Your task to perform on an android device: Check the weather Image 0: 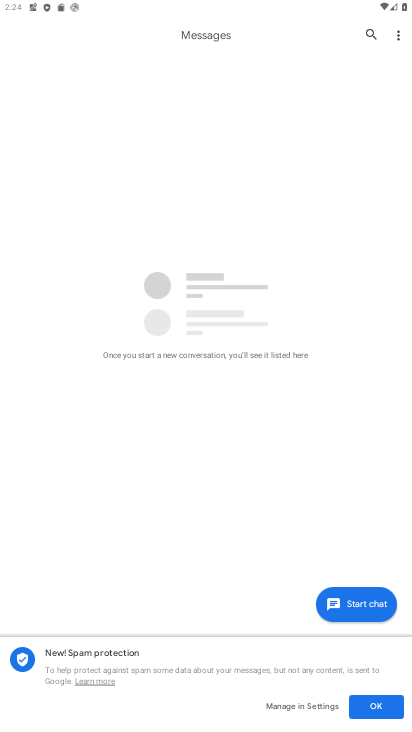
Step 0: press home button
Your task to perform on an android device: Check the weather Image 1: 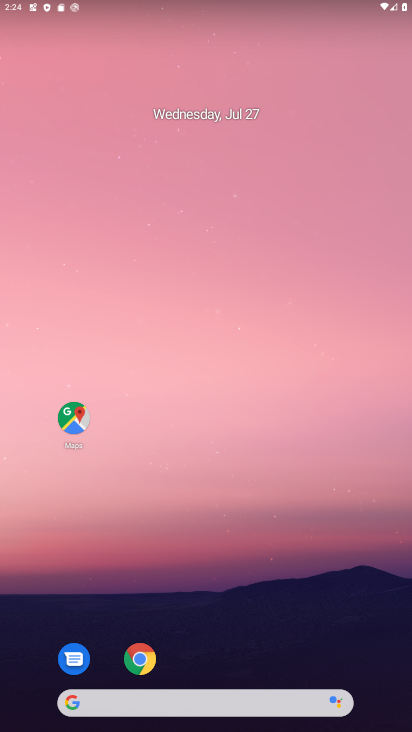
Step 1: drag from (238, 725) to (233, 134)
Your task to perform on an android device: Check the weather Image 2: 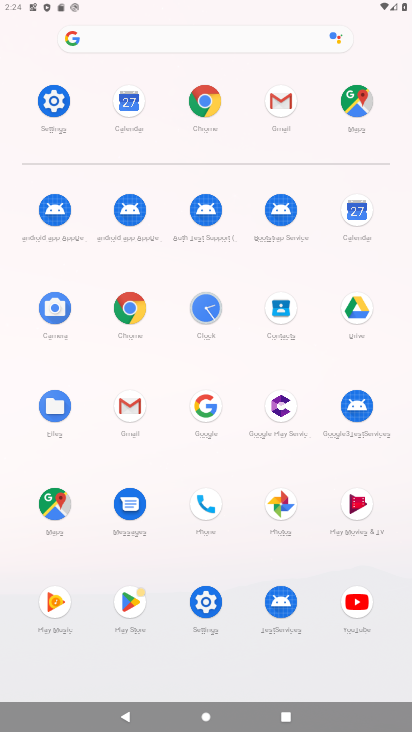
Step 2: click (204, 403)
Your task to perform on an android device: Check the weather Image 3: 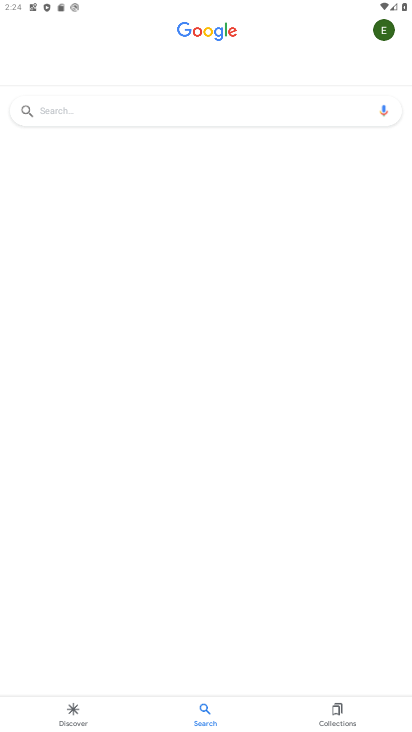
Step 3: click (133, 106)
Your task to perform on an android device: Check the weather Image 4: 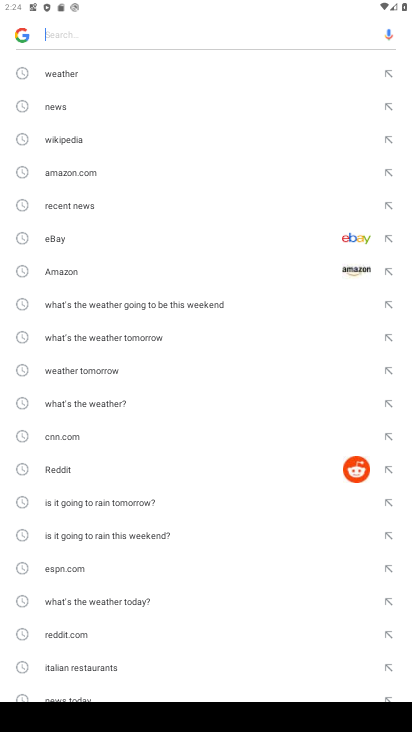
Step 4: click (68, 76)
Your task to perform on an android device: Check the weather Image 5: 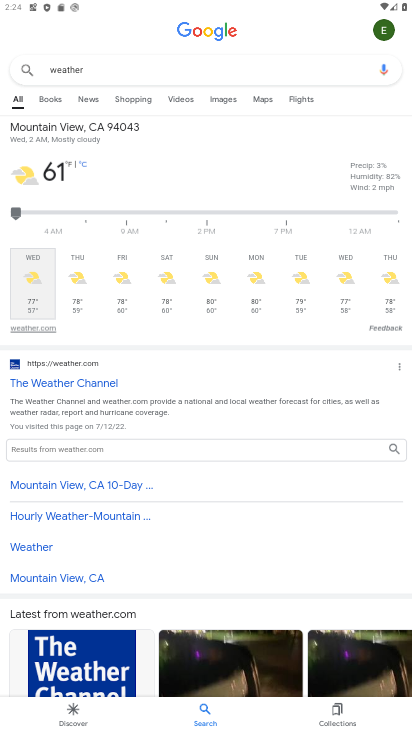
Step 5: task complete